Your task to perform on an android device: turn off location history Image 0: 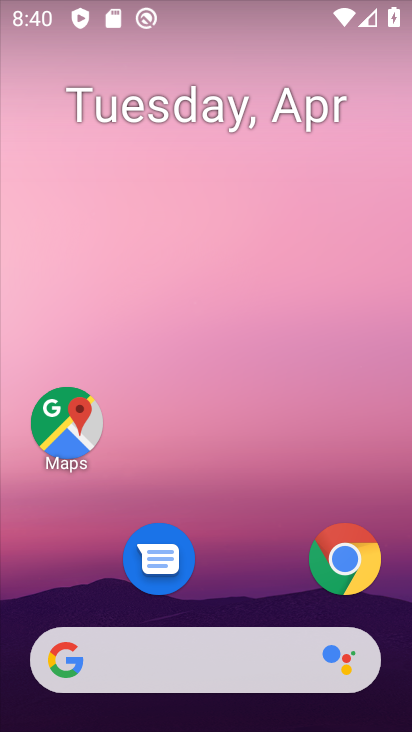
Step 0: drag from (237, 709) to (296, 126)
Your task to perform on an android device: turn off location history Image 1: 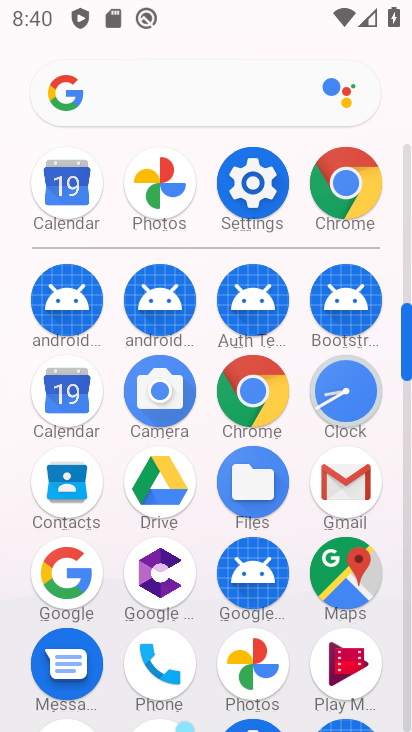
Step 1: click (255, 197)
Your task to perform on an android device: turn off location history Image 2: 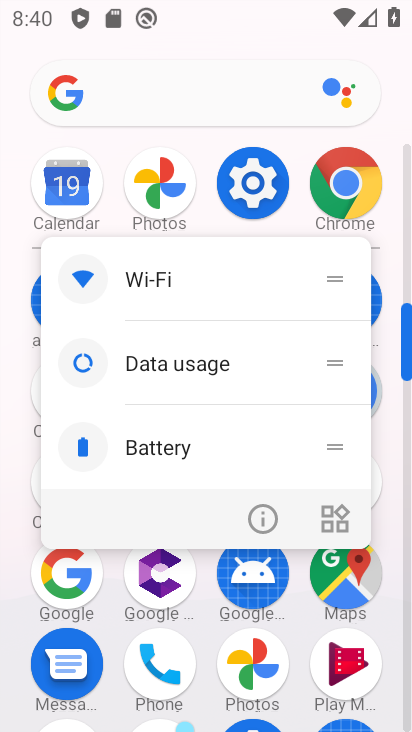
Step 2: click (255, 197)
Your task to perform on an android device: turn off location history Image 3: 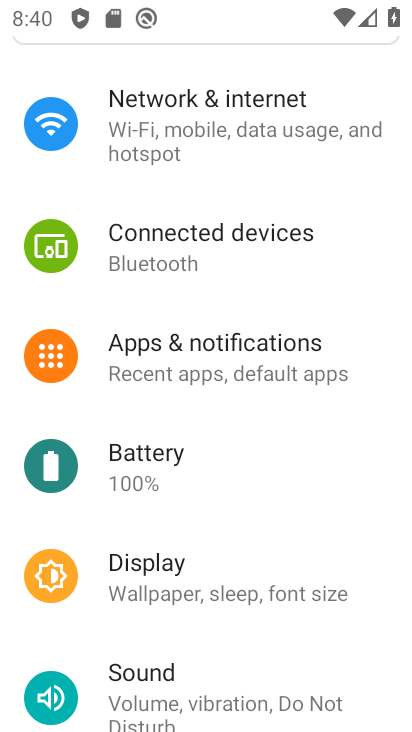
Step 3: drag from (239, 96) to (245, 160)
Your task to perform on an android device: turn off location history Image 4: 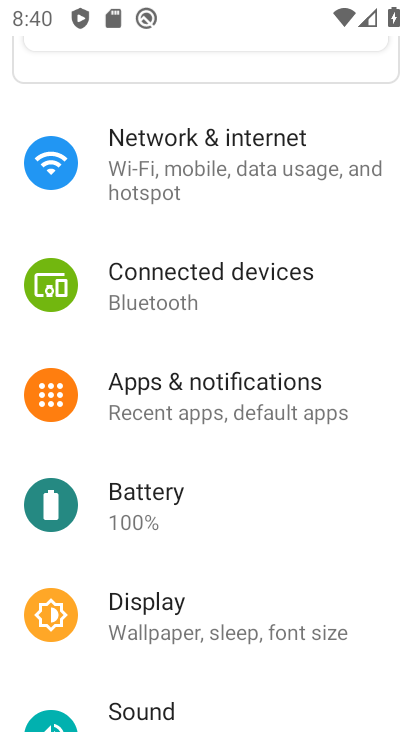
Step 4: drag from (236, 136) to (265, 324)
Your task to perform on an android device: turn off location history Image 5: 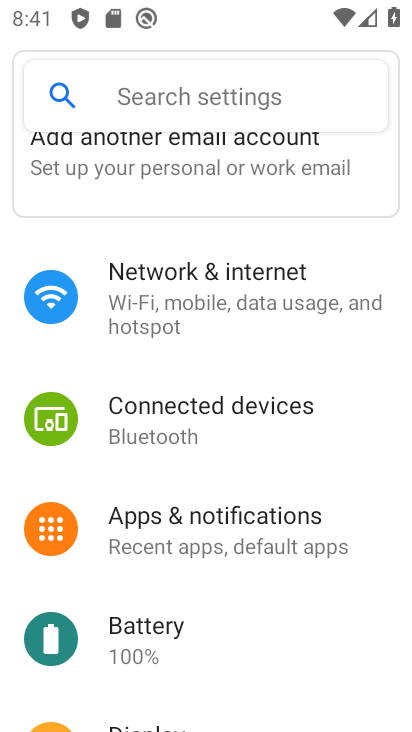
Step 5: click (199, 89)
Your task to perform on an android device: turn off location history Image 6: 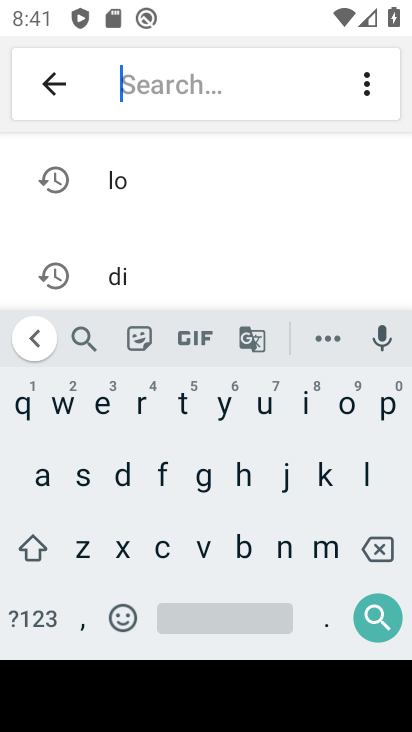
Step 6: click (171, 164)
Your task to perform on an android device: turn off location history Image 7: 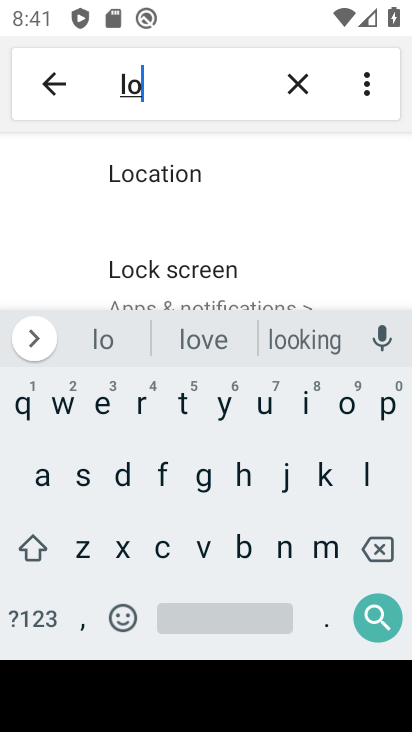
Step 7: press back button
Your task to perform on an android device: turn off location history Image 8: 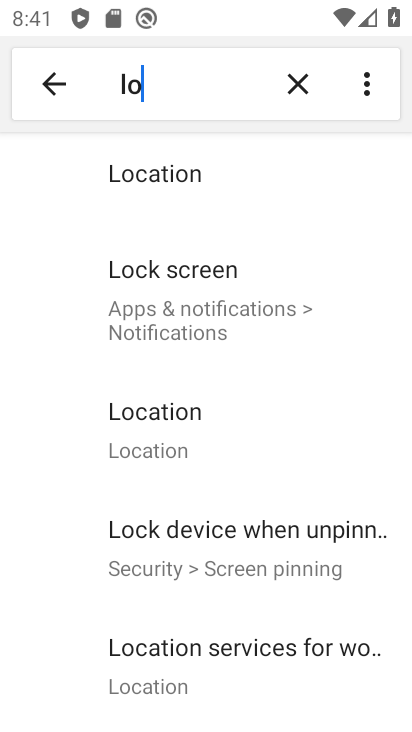
Step 8: click (190, 422)
Your task to perform on an android device: turn off location history Image 9: 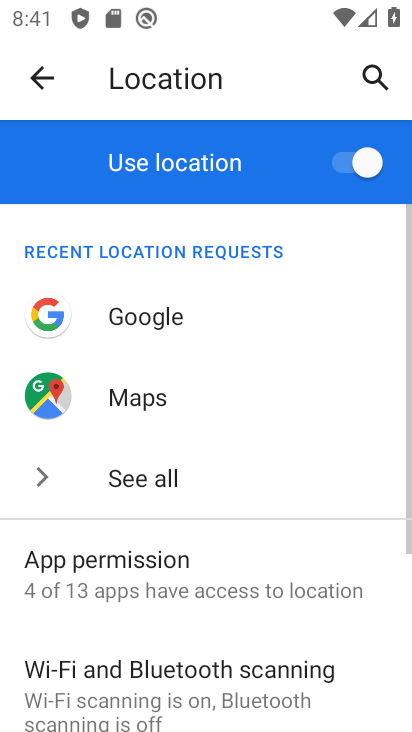
Step 9: drag from (179, 639) to (220, 322)
Your task to perform on an android device: turn off location history Image 10: 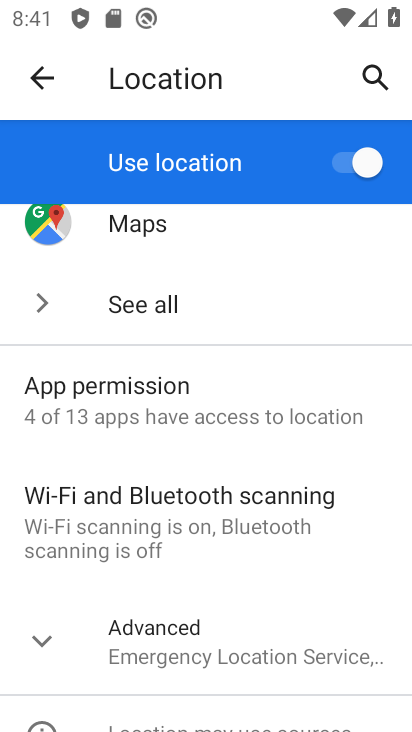
Step 10: click (111, 625)
Your task to perform on an android device: turn off location history Image 11: 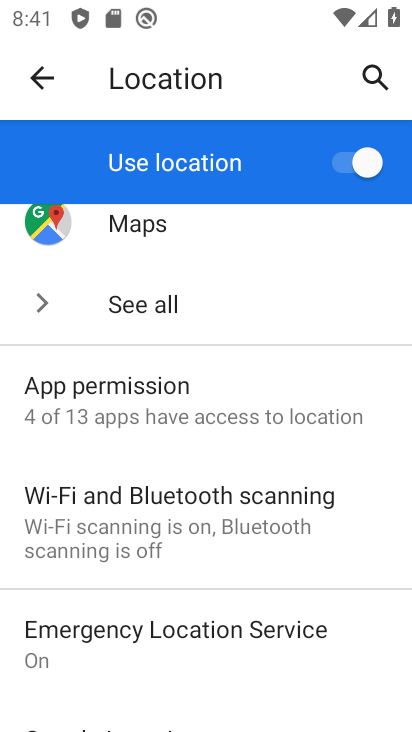
Step 11: drag from (179, 535) to (207, 342)
Your task to perform on an android device: turn off location history Image 12: 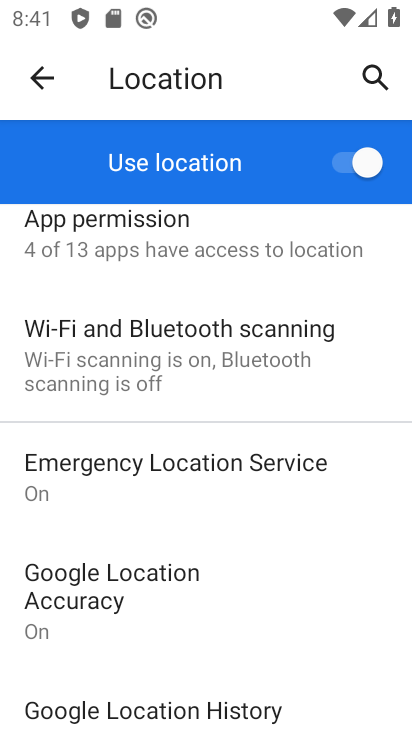
Step 12: click (190, 697)
Your task to perform on an android device: turn off location history Image 13: 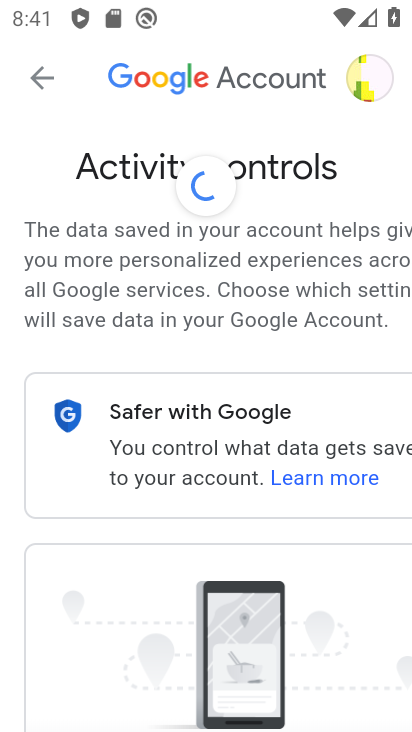
Step 13: drag from (221, 564) to (262, 90)
Your task to perform on an android device: turn off location history Image 14: 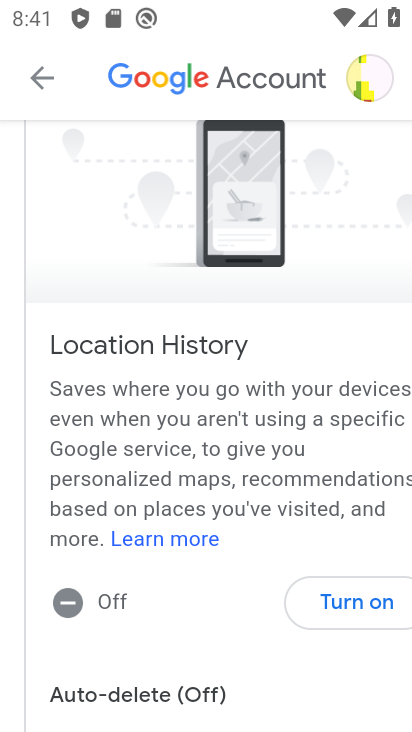
Step 14: click (340, 608)
Your task to perform on an android device: turn off location history Image 15: 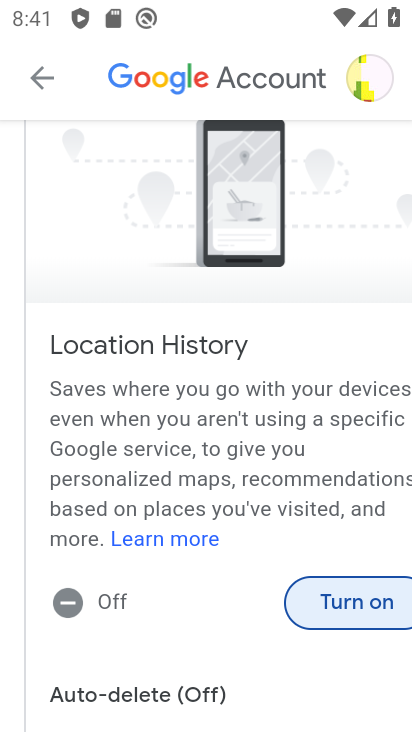
Step 15: click (99, 601)
Your task to perform on an android device: turn off location history Image 16: 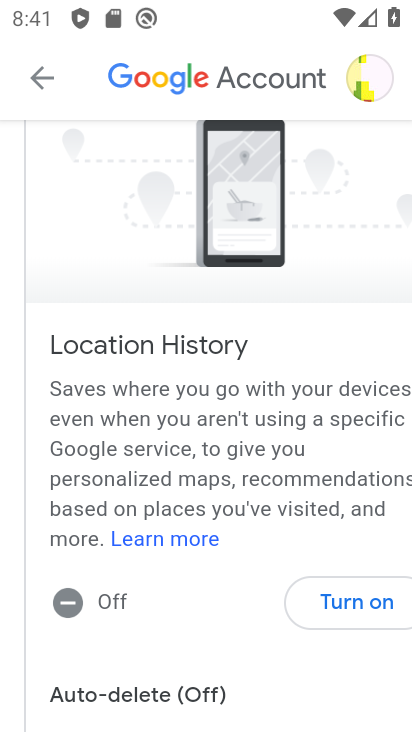
Step 16: click (99, 601)
Your task to perform on an android device: turn off location history Image 17: 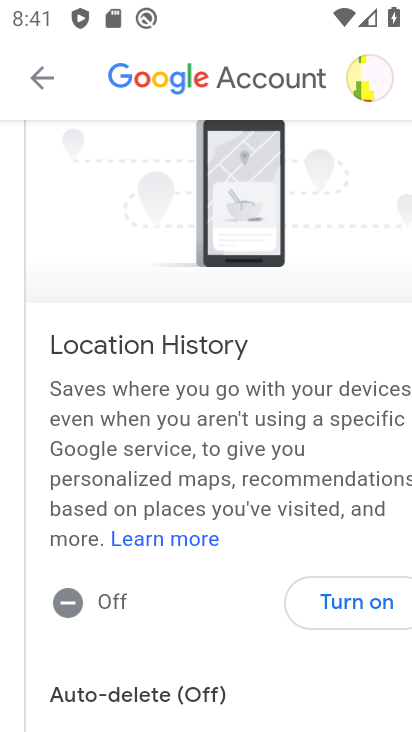
Step 17: click (68, 601)
Your task to perform on an android device: turn off location history Image 18: 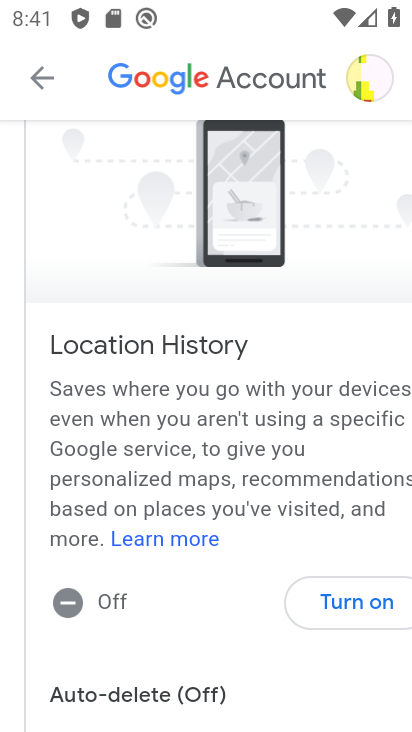
Step 18: task complete